Your task to perform on an android device: Is it going to rain this weekend? Image 0: 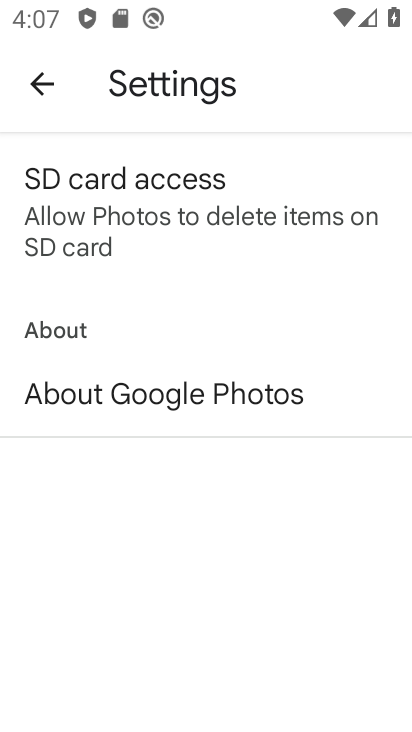
Step 0: press home button
Your task to perform on an android device: Is it going to rain this weekend? Image 1: 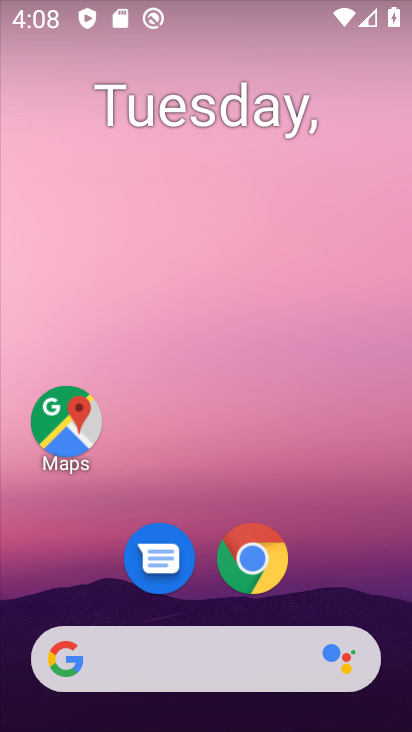
Step 1: drag from (363, 589) to (295, 266)
Your task to perform on an android device: Is it going to rain this weekend? Image 2: 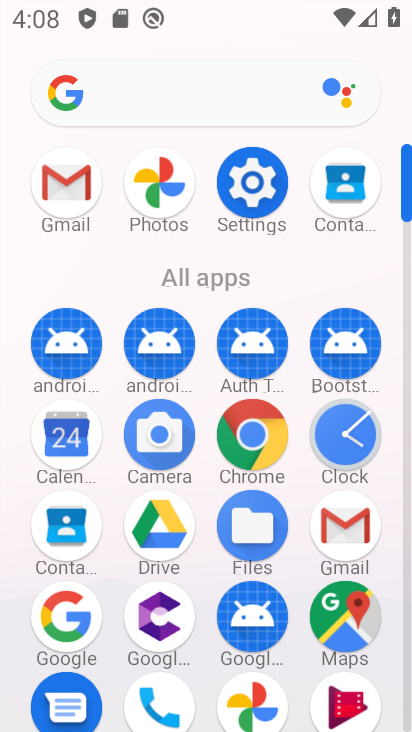
Step 2: click (272, 453)
Your task to perform on an android device: Is it going to rain this weekend? Image 3: 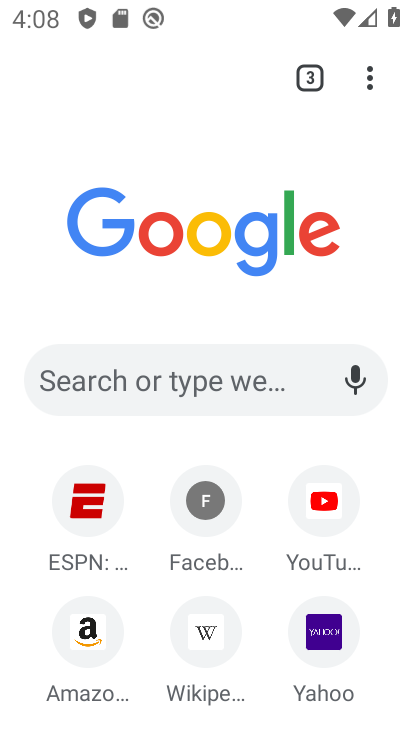
Step 3: click (229, 385)
Your task to perform on an android device: Is it going to rain this weekend? Image 4: 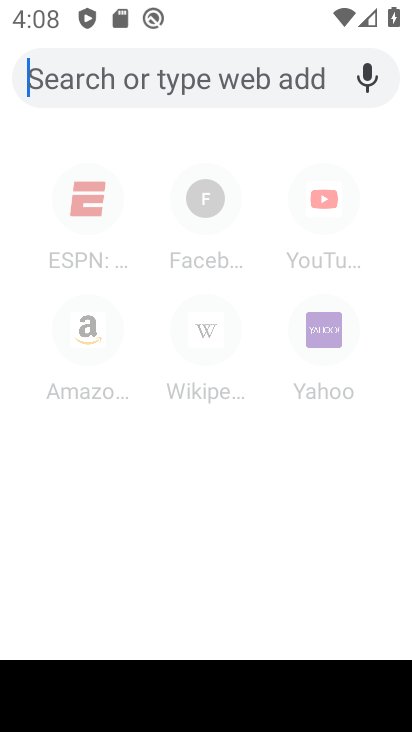
Step 4: type "Is it going to rain this weekend?"
Your task to perform on an android device: Is it going to rain this weekend? Image 5: 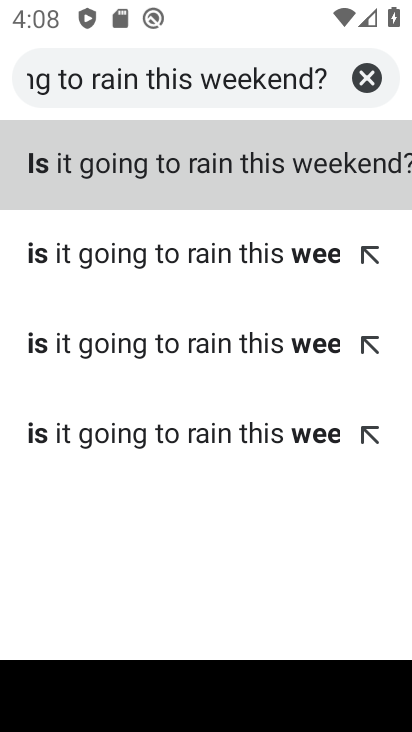
Step 5: click (356, 160)
Your task to perform on an android device: Is it going to rain this weekend? Image 6: 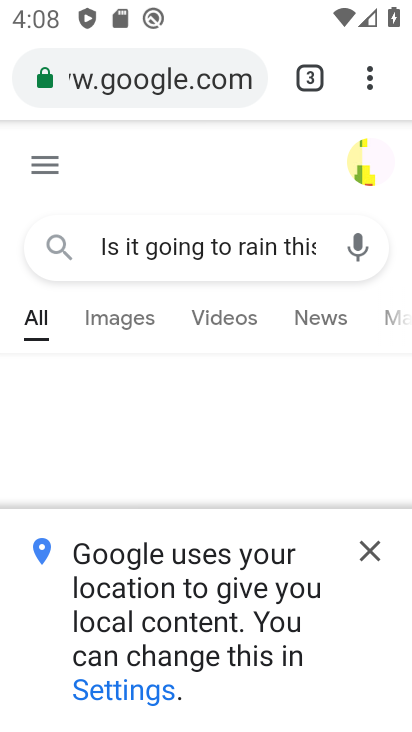
Step 6: click (380, 550)
Your task to perform on an android device: Is it going to rain this weekend? Image 7: 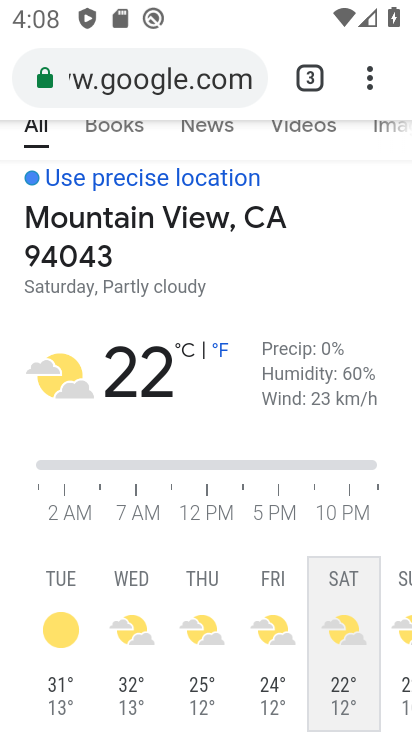
Step 7: task complete